Your task to perform on an android device: Search for the best rated kitchen reno kits on Lowes.com Image 0: 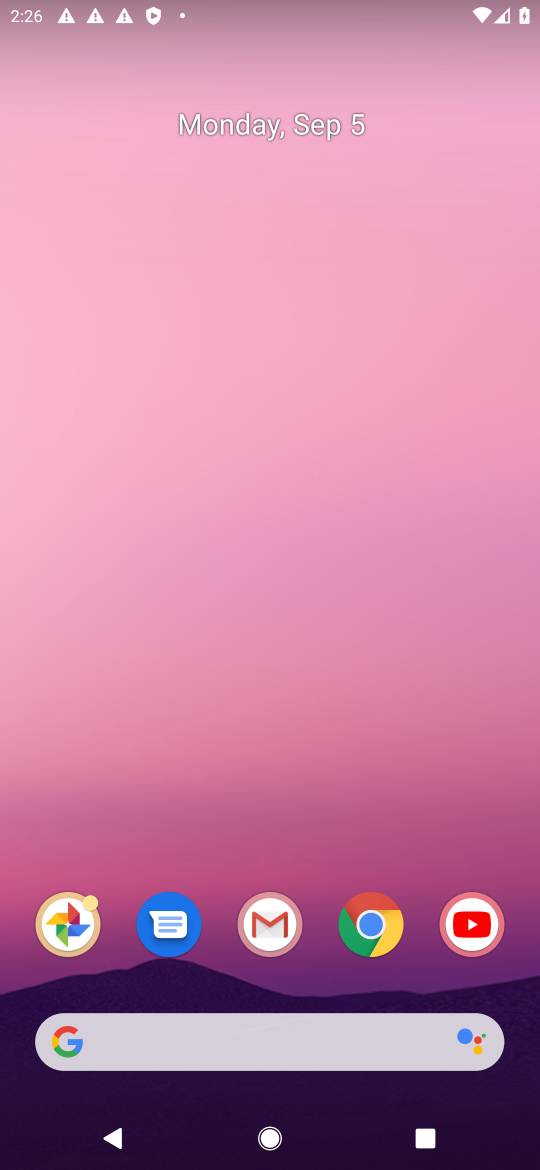
Step 0: click (374, 938)
Your task to perform on an android device: Search for the best rated kitchen reno kits on Lowes.com Image 1: 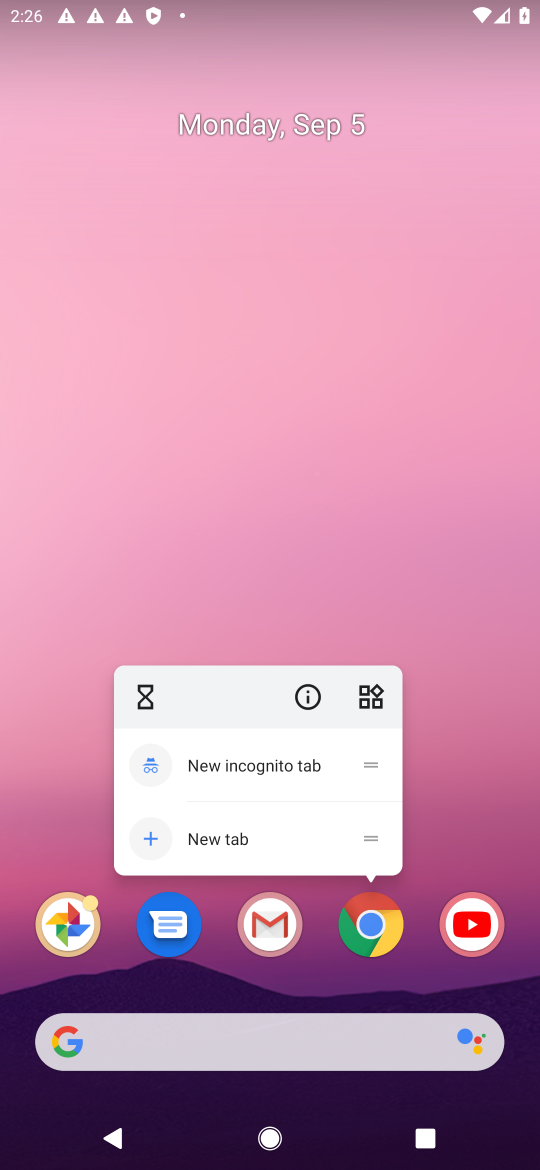
Step 1: click (374, 938)
Your task to perform on an android device: Search for the best rated kitchen reno kits on Lowes.com Image 2: 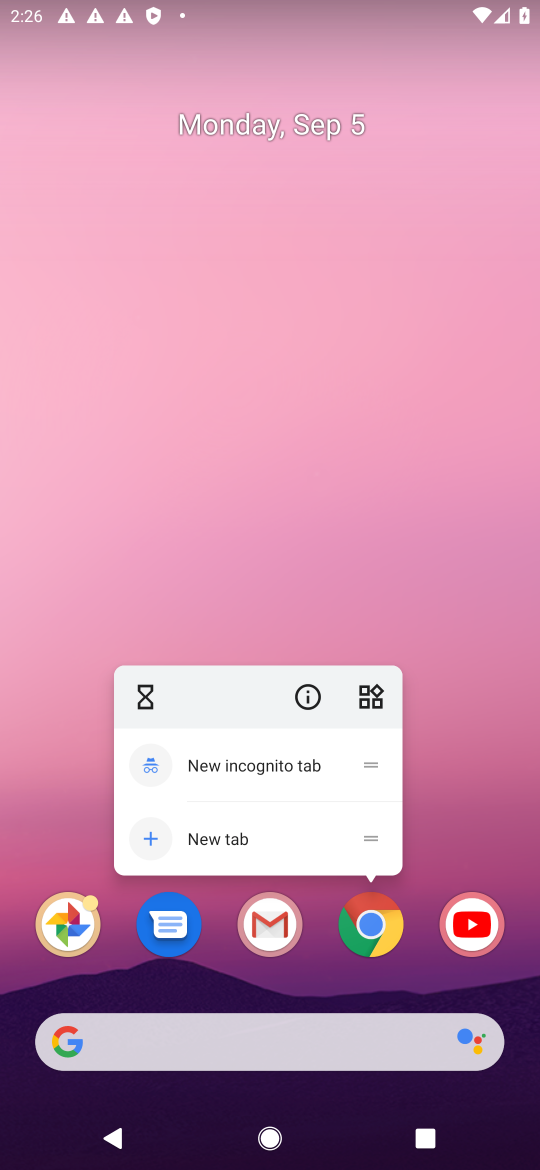
Step 2: click (374, 938)
Your task to perform on an android device: Search for the best rated kitchen reno kits on Lowes.com Image 3: 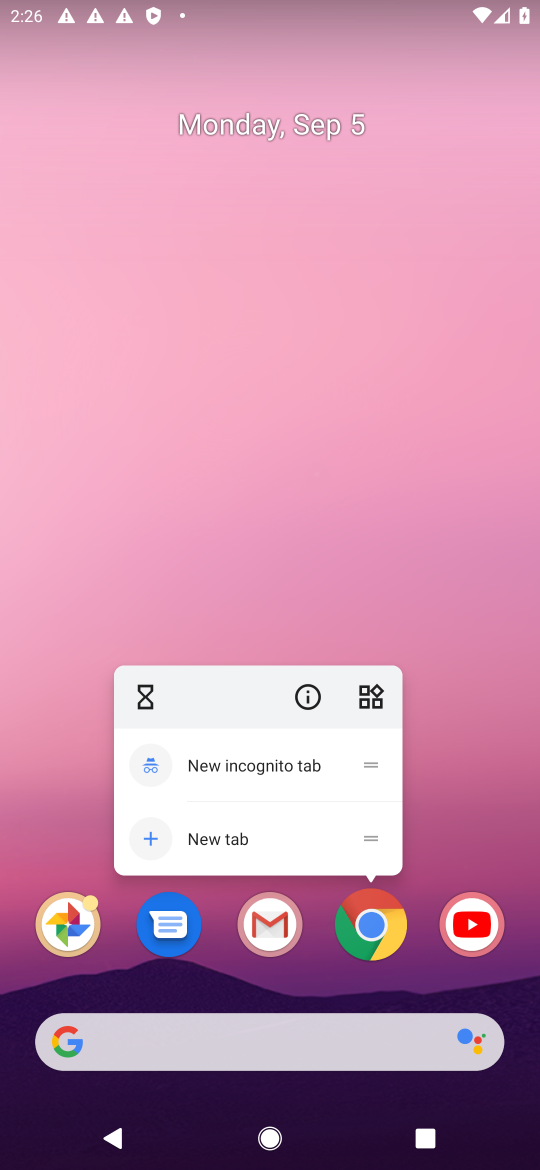
Step 3: click (374, 938)
Your task to perform on an android device: Search for the best rated kitchen reno kits on Lowes.com Image 4: 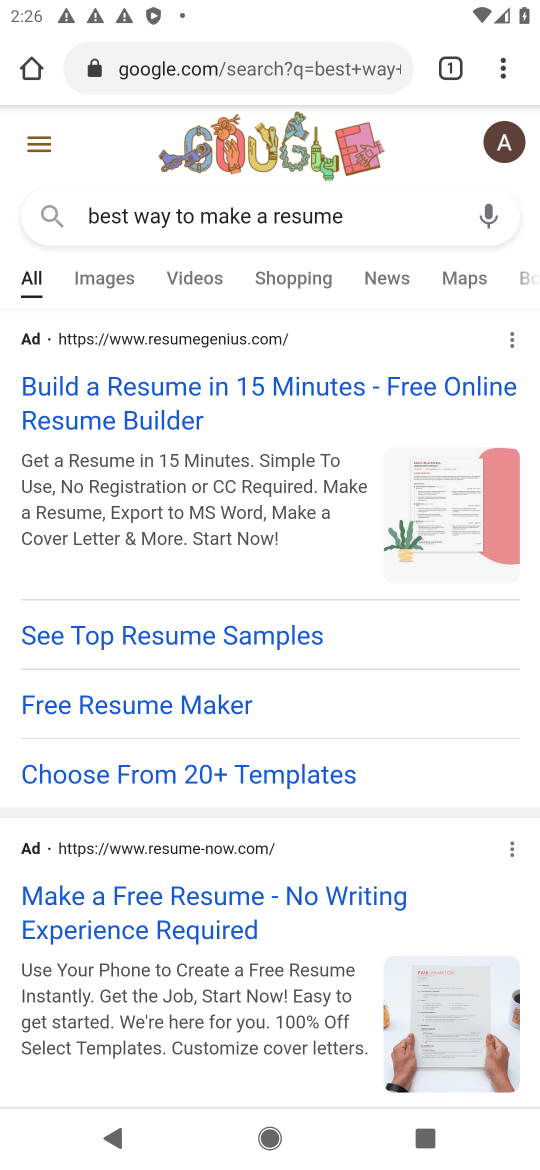
Step 4: click (368, 71)
Your task to perform on an android device: Search for the best rated kitchen reno kits on Lowes.com Image 5: 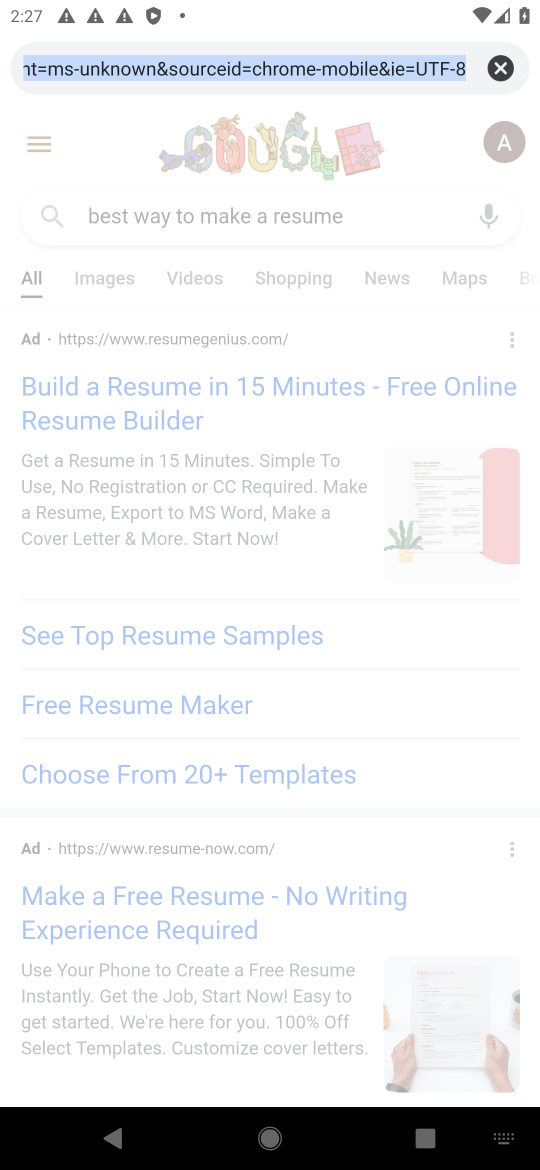
Step 5: type "Lowes.com"
Your task to perform on an android device: Search for the best rated kitchen reno kits on Lowes.com Image 6: 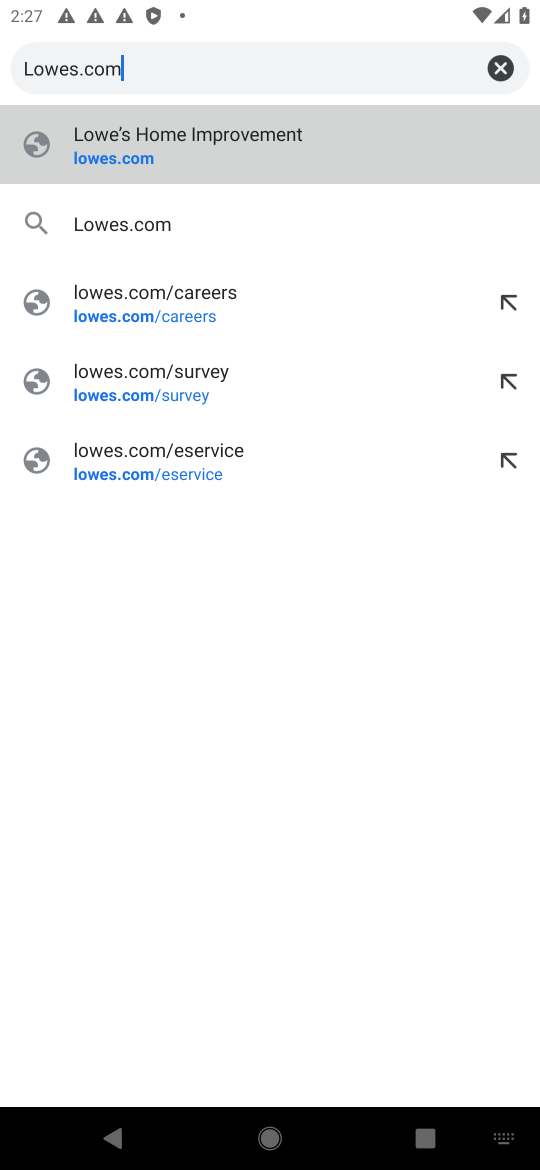
Step 6: click (280, 135)
Your task to perform on an android device: Search for the best rated kitchen reno kits on Lowes.com Image 7: 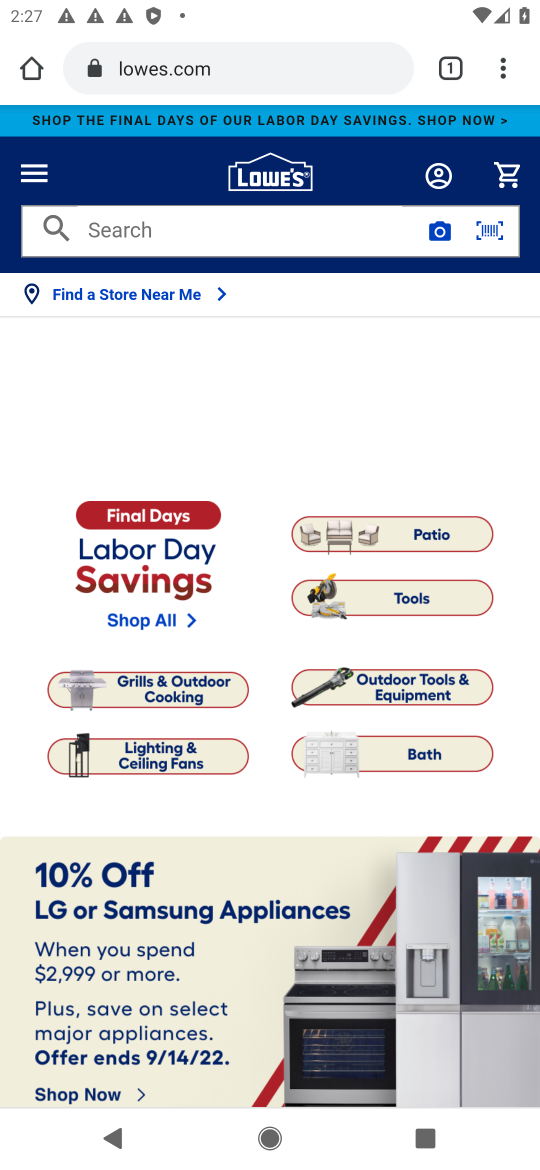
Step 7: click (263, 236)
Your task to perform on an android device: Search for the best rated kitchen reno kits on Lowes.com Image 8: 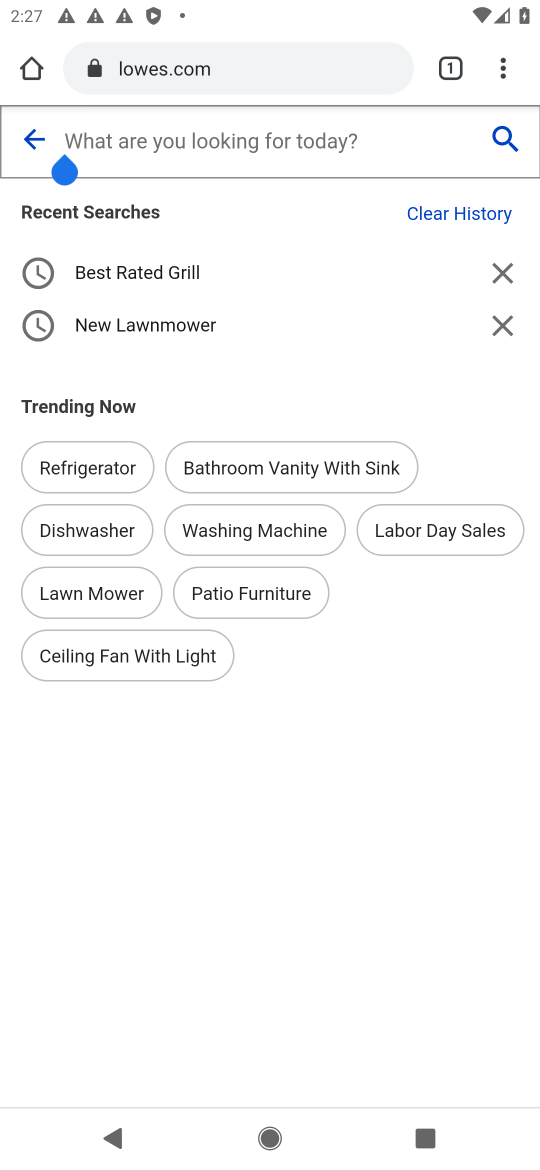
Step 8: type "best rated kitchen reno kits"
Your task to perform on an android device: Search for the best rated kitchen reno kits on Lowes.com Image 9: 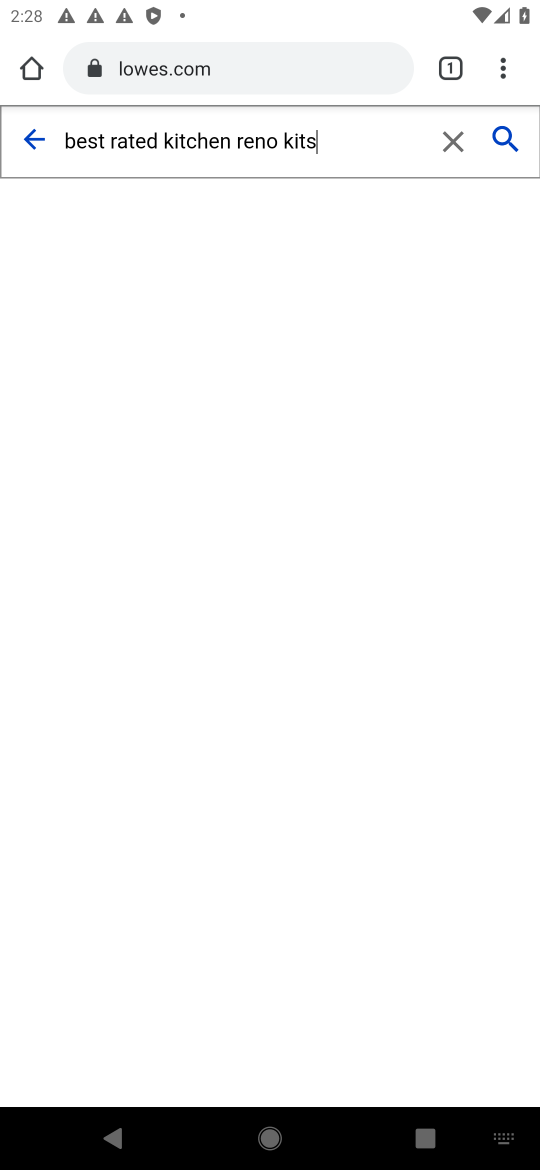
Step 9: click (503, 142)
Your task to perform on an android device: Search for the best rated kitchen reno kits on Lowes.com Image 10: 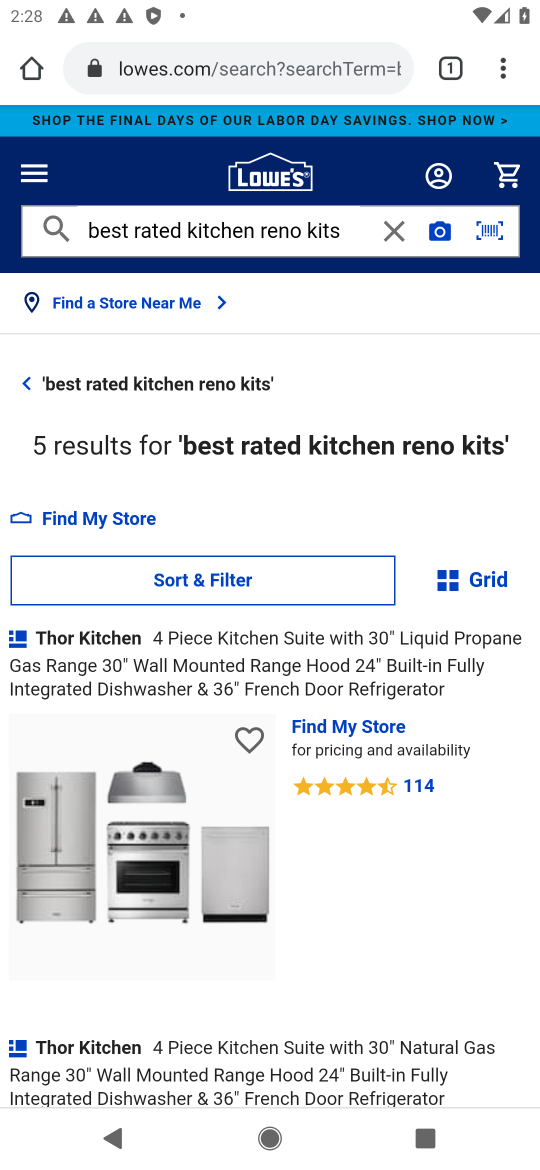
Step 10: task complete